Your task to perform on an android device: turn on notifications settings in the gmail app Image 0: 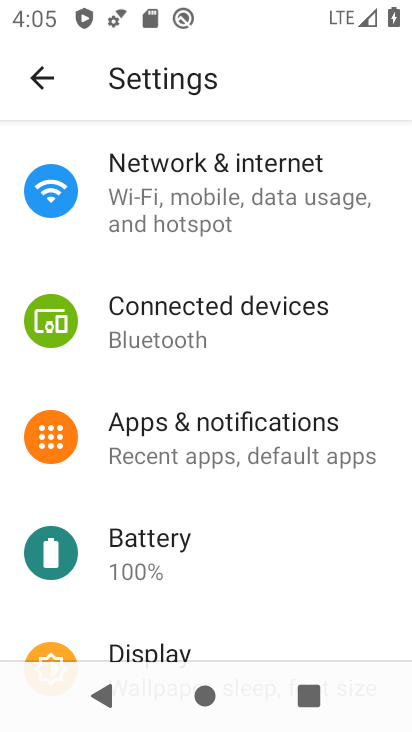
Step 0: press home button
Your task to perform on an android device: turn on notifications settings in the gmail app Image 1: 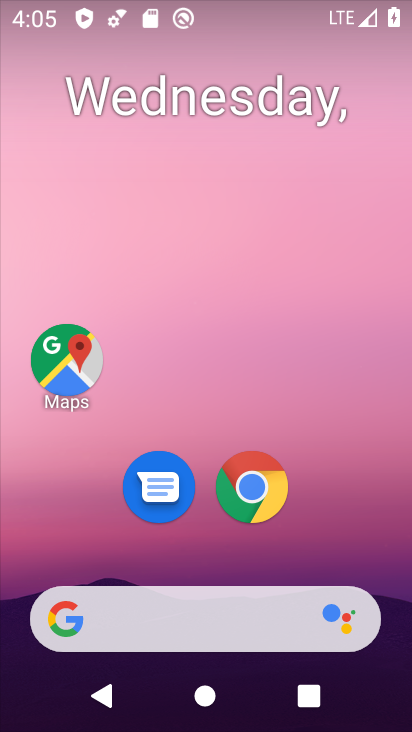
Step 1: drag from (358, 575) to (304, 6)
Your task to perform on an android device: turn on notifications settings in the gmail app Image 2: 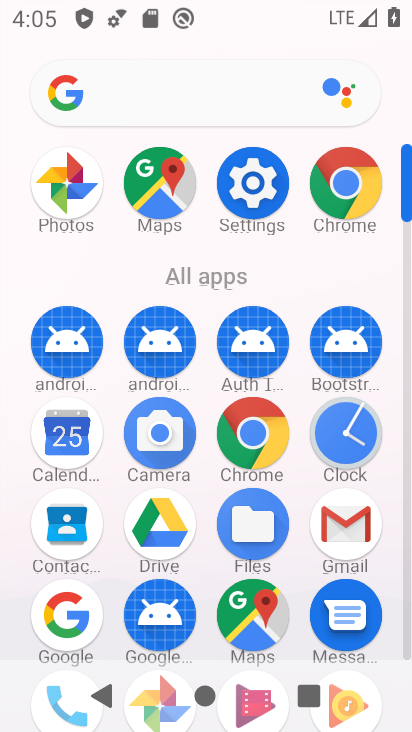
Step 2: click (332, 529)
Your task to perform on an android device: turn on notifications settings in the gmail app Image 3: 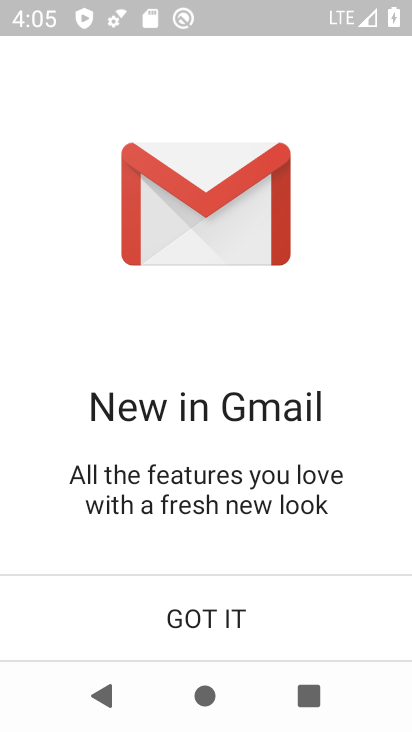
Step 3: click (246, 615)
Your task to perform on an android device: turn on notifications settings in the gmail app Image 4: 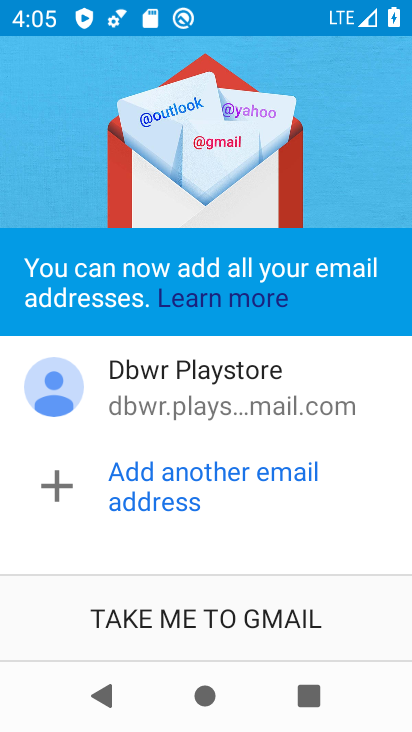
Step 4: click (208, 623)
Your task to perform on an android device: turn on notifications settings in the gmail app Image 5: 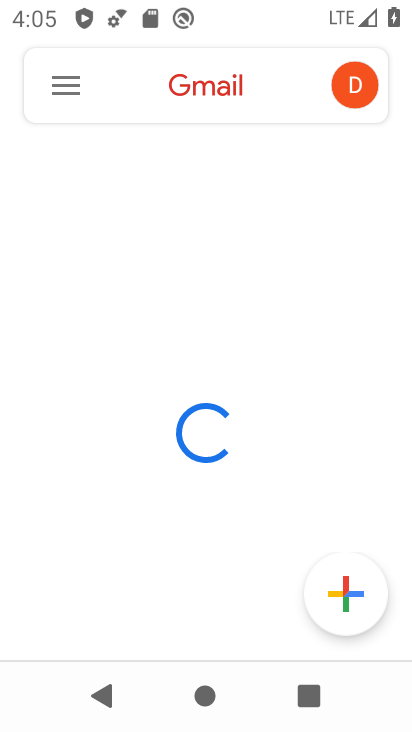
Step 5: click (56, 89)
Your task to perform on an android device: turn on notifications settings in the gmail app Image 6: 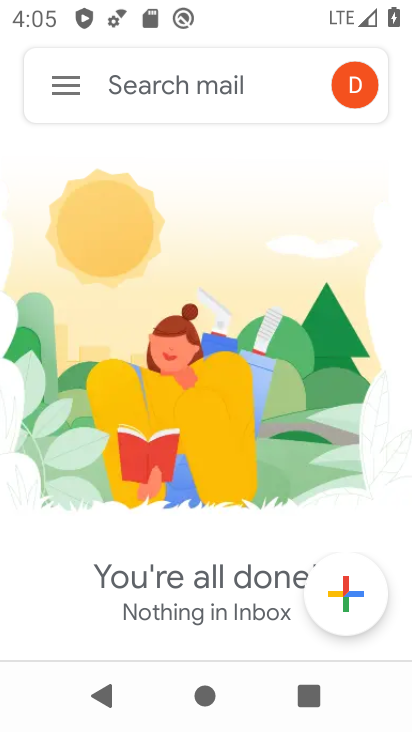
Step 6: click (77, 107)
Your task to perform on an android device: turn on notifications settings in the gmail app Image 7: 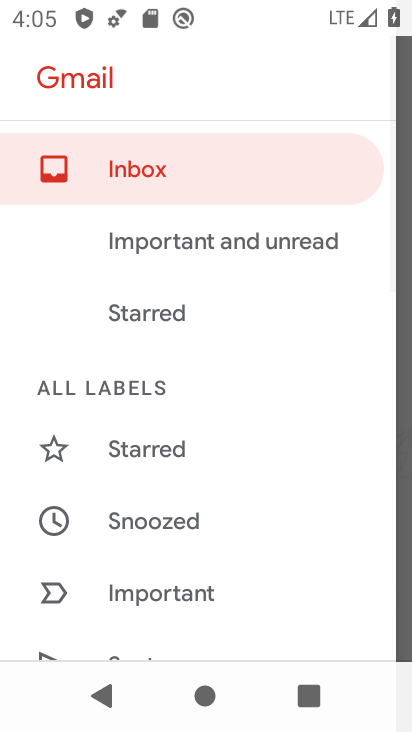
Step 7: drag from (164, 569) to (143, 7)
Your task to perform on an android device: turn on notifications settings in the gmail app Image 8: 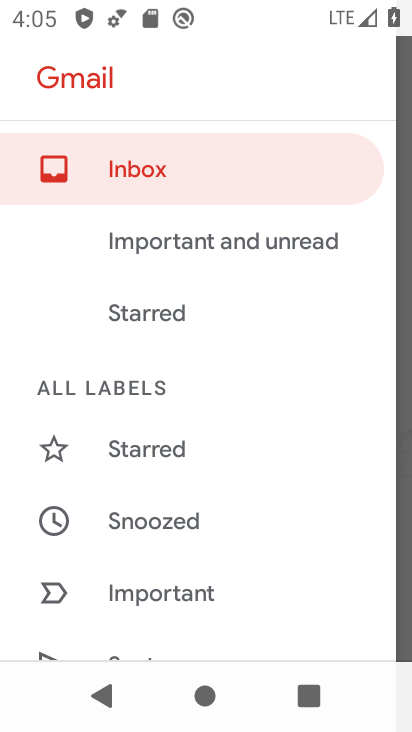
Step 8: drag from (220, 555) to (202, 12)
Your task to perform on an android device: turn on notifications settings in the gmail app Image 9: 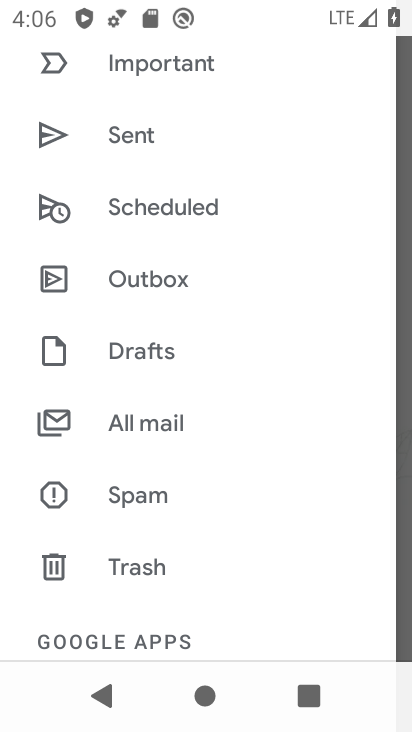
Step 9: drag from (221, 635) to (157, 180)
Your task to perform on an android device: turn on notifications settings in the gmail app Image 10: 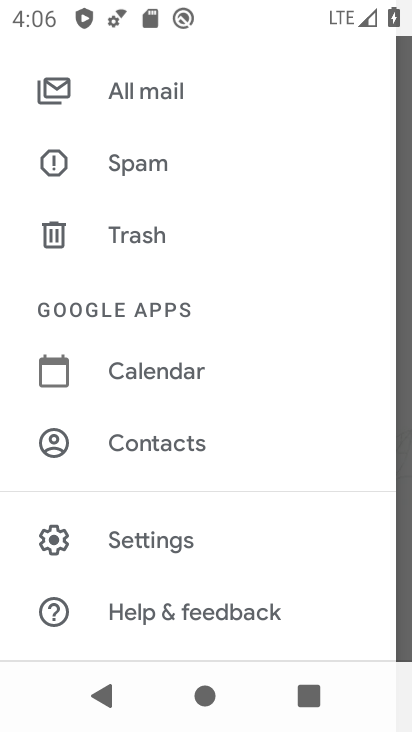
Step 10: click (171, 538)
Your task to perform on an android device: turn on notifications settings in the gmail app Image 11: 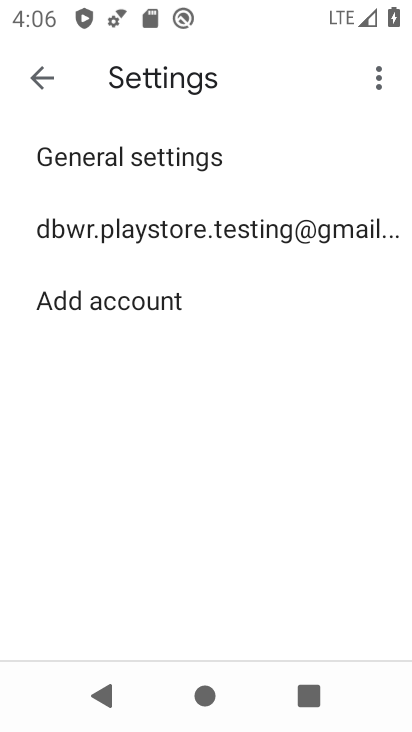
Step 11: click (155, 231)
Your task to perform on an android device: turn on notifications settings in the gmail app Image 12: 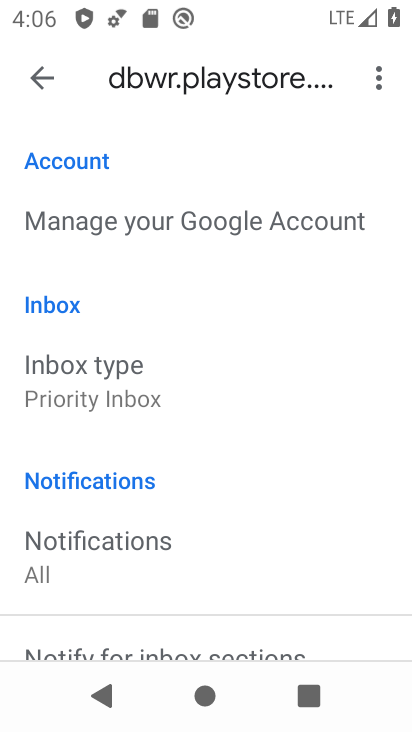
Step 12: drag from (180, 539) to (147, 85)
Your task to perform on an android device: turn on notifications settings in the gmail app Image 13: 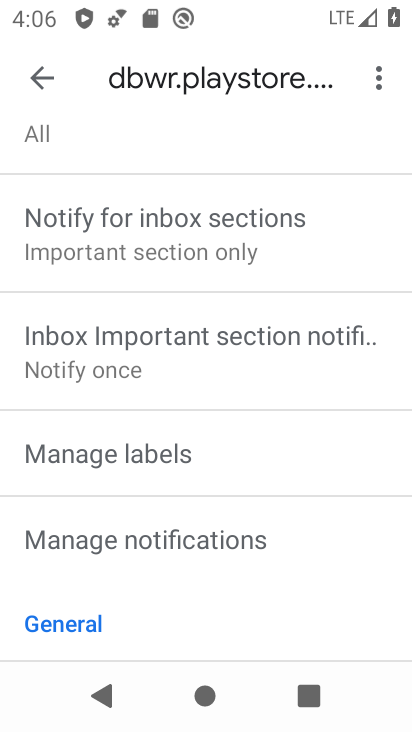
Step 13: drag from (186, 589) to (163, 233)
Your task to perform on an android device: turn on notifications settings in the gmail app Image 14: 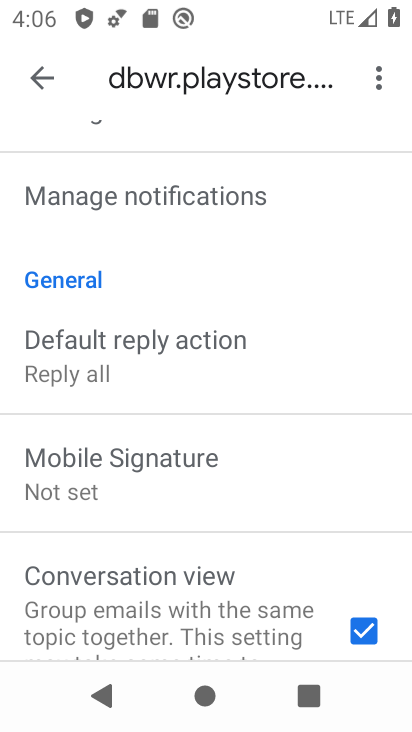
Step 14: click (156, 201)
Your task to perform on an android device: turn on notifications settings in the gmail app Image 15: 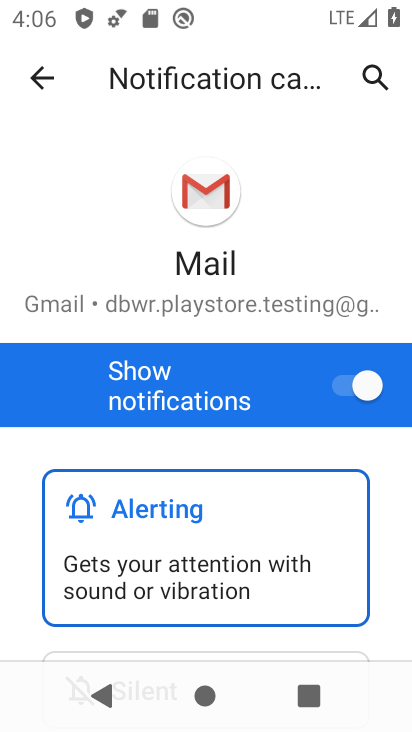
Step 15: task complete